Your task to perform on an android device: change the clock display to digital Image 0: 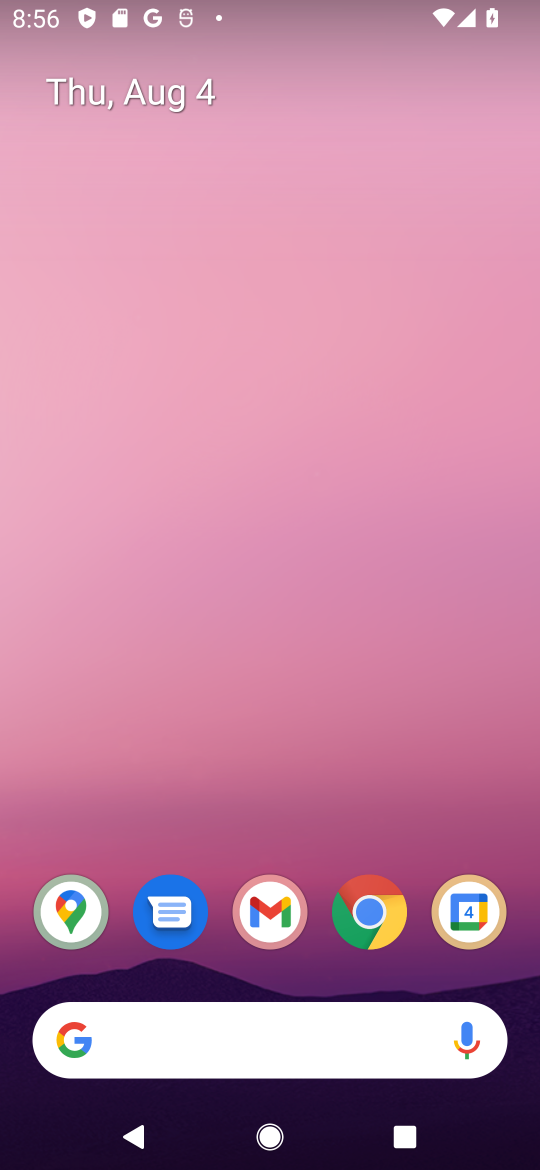
Step 0: drag from (424, 773) to (298, 95)
Your task to perform on an android device: change the clock display to digital Image 1: 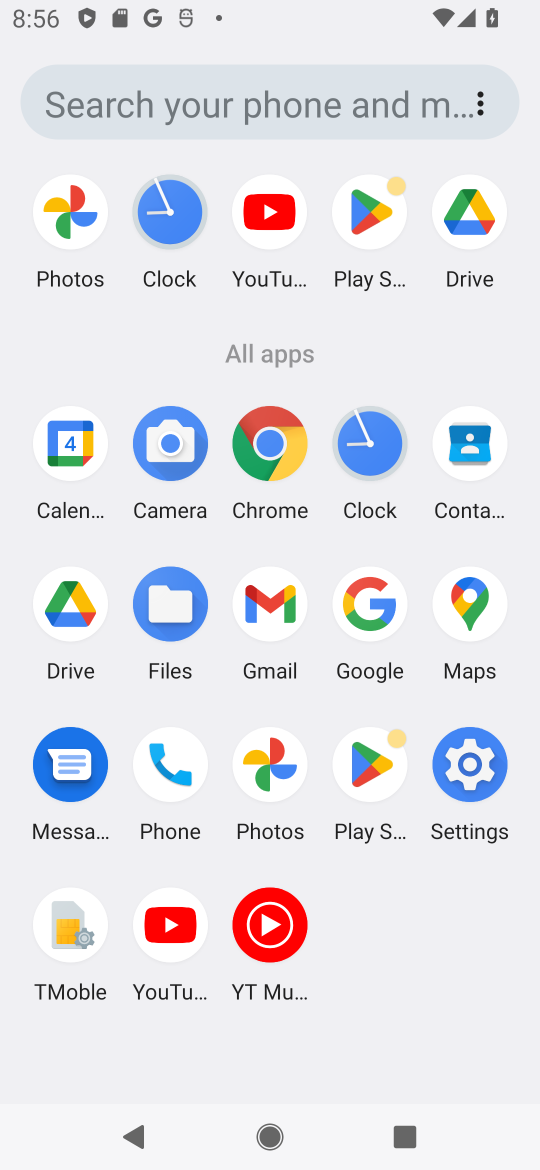
Step 1: click (182, 222)
Your task to perform on an android device: change the clock display to digital Image 2: 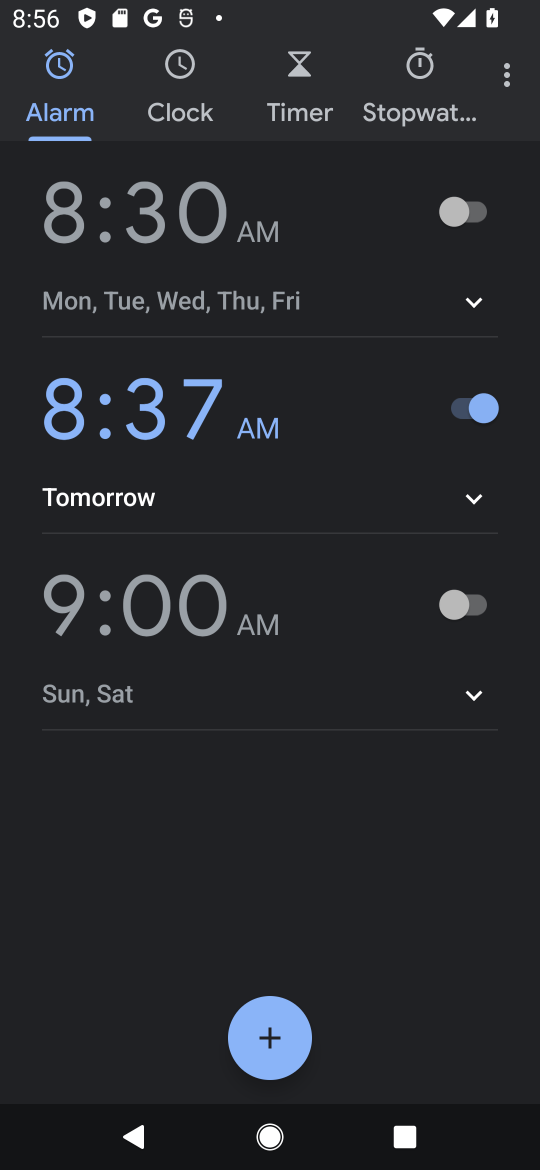
Step 2: click (508, 98)
Your task to perform on an android device: change the clock display to digital Image 3: 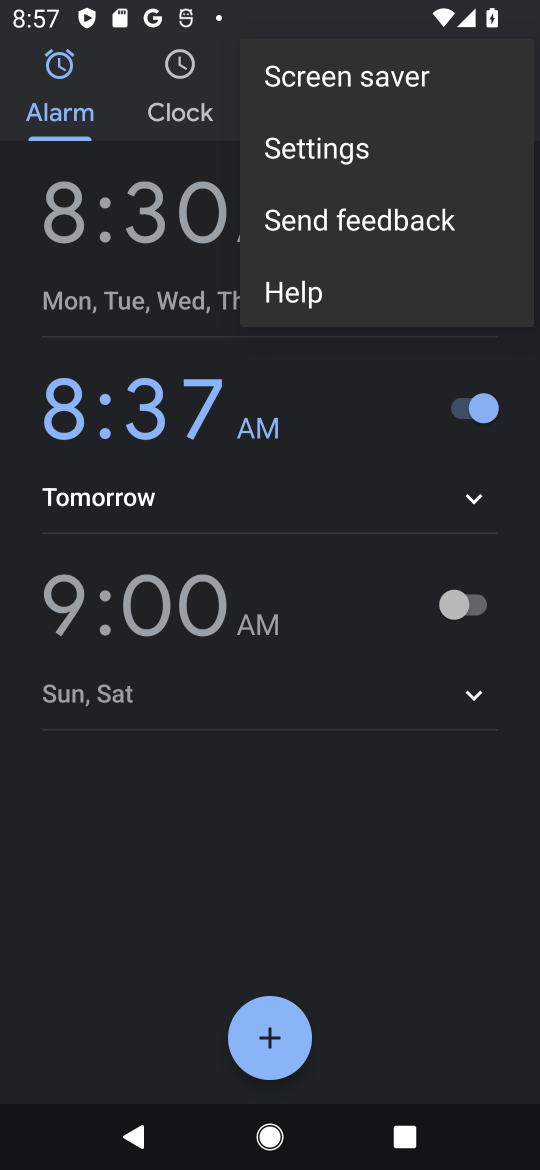
Step 3: click (350, 154)
Your task to perform on an android device: change the clock display to digital Image 4: 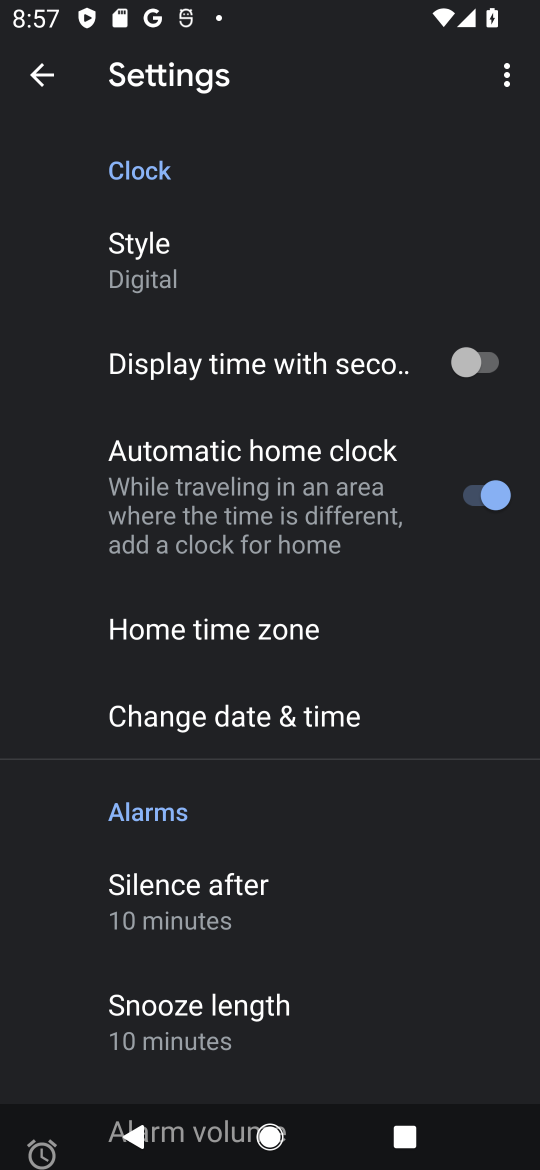
Step 4: task complete